Your task to perform on an android device: Open the stopwatch Image 0: 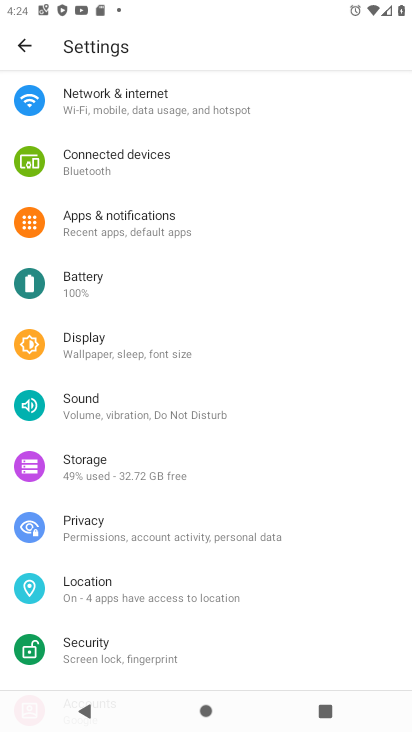
Step 0: press home button
Your task to perform on an android device: Open the stopwatch Image 1: 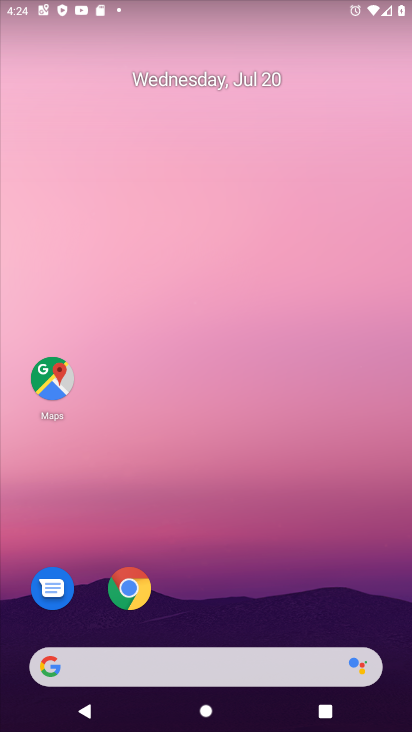
Step 1: drag from (278, 589) to (291, 142)
Your task to perform on an android device: Open the stopwatch Image 2: 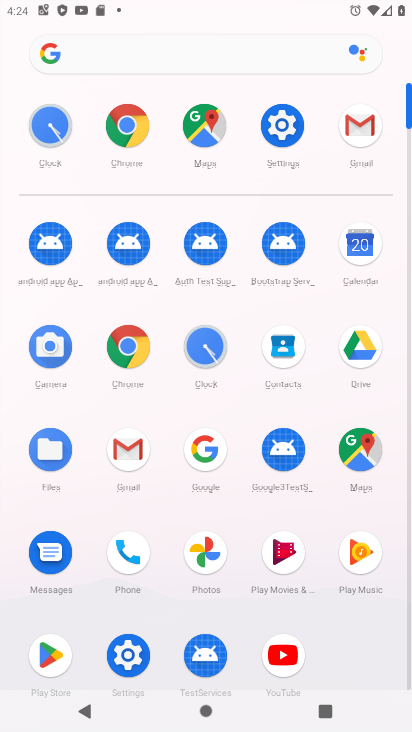
Step 2: click (208, 348)
Your task to perform on an android device: Open the stopwatch Image 3: 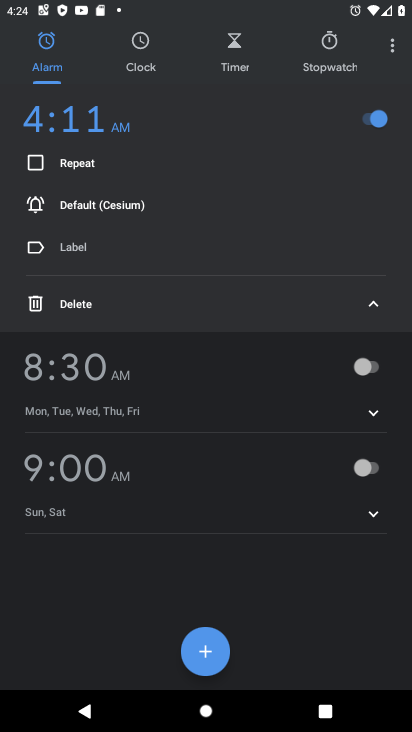
Step 3: click (331, 56)
Your task to perform on an android device: Open the stopwatch Image 4: 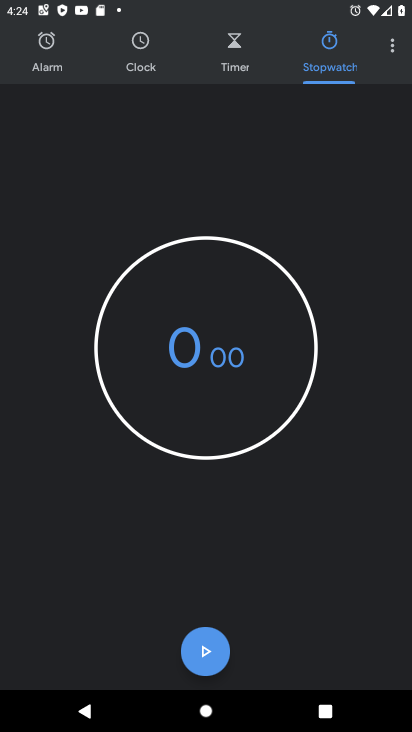
Step 4: task complete